Your task to perform on an android device: choose inbox layout in the gmail app Image 0: 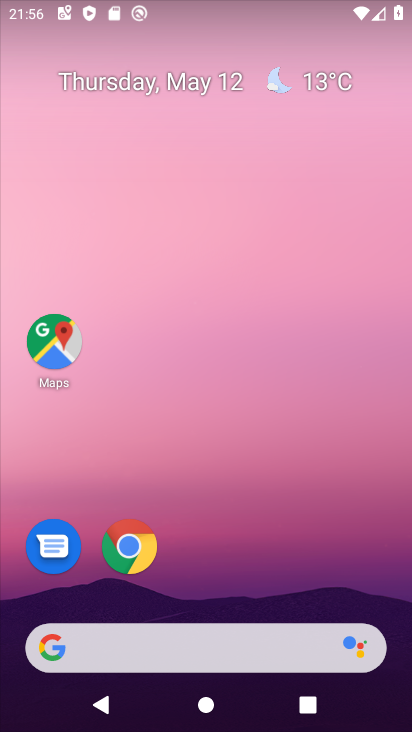
Step 0: drag from (228, 520) to (277, 123)
Your task to perform on an android device: choose inbox layout in the gmail app Image 1: 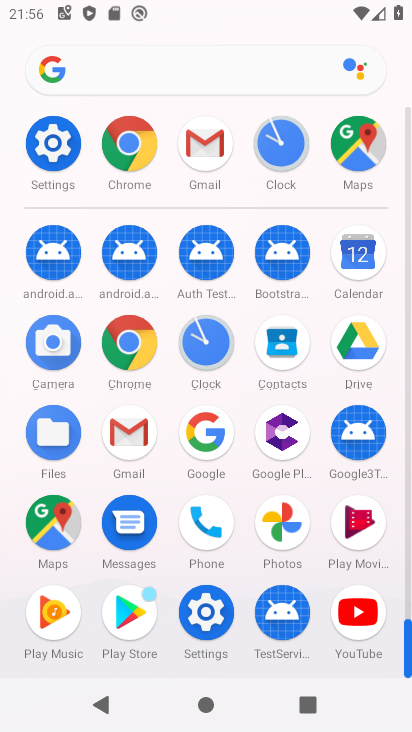
Step 1: click (119, 428)
Your task to perform on an android device: choose inbox layout in the gmail app Image 2: 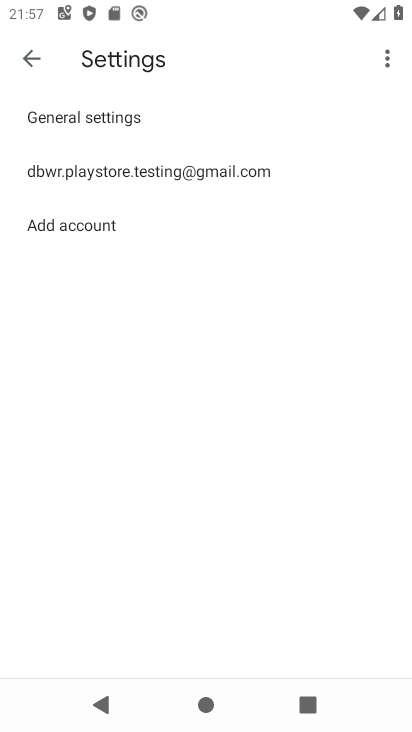
Step 2: click (102, 162)
Your task to perform on an android device: choose inbox layout in the gmail app Image 3: 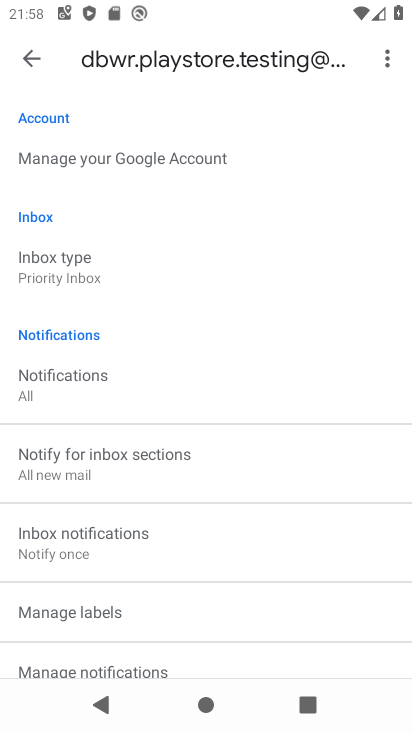
Step 3: click (66, 280)
Your task to perform on an android device: choose inbox layout in the gmail app Image 4: 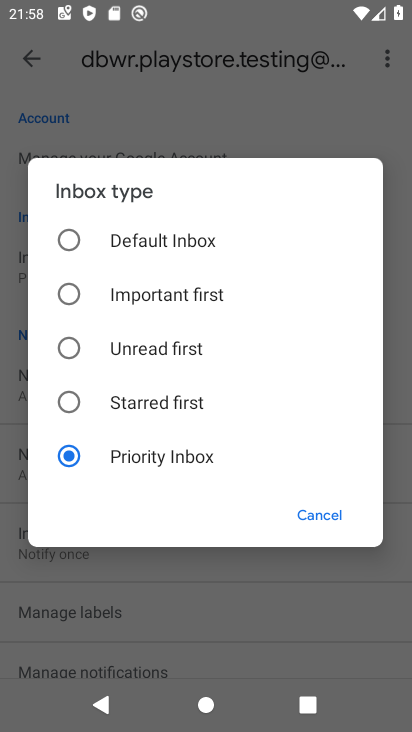
Step 4: click (127, 242)
Your task to perform on an android device: choose inbox layout in the gmail app Image 5: 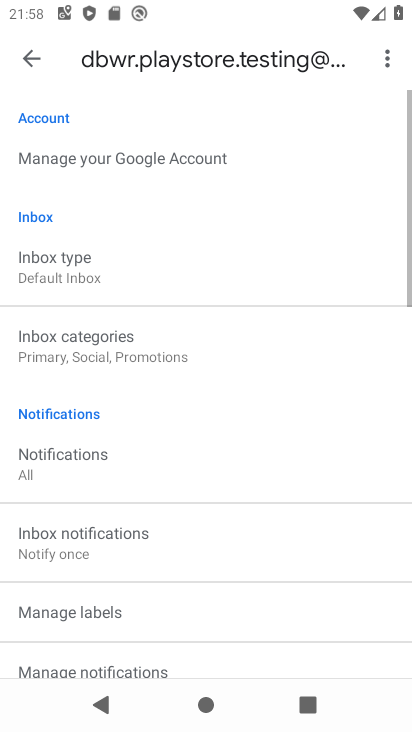
Step 5: task complete